Your task to perform on an android device: add a label to a message in the gmail app Image 0: 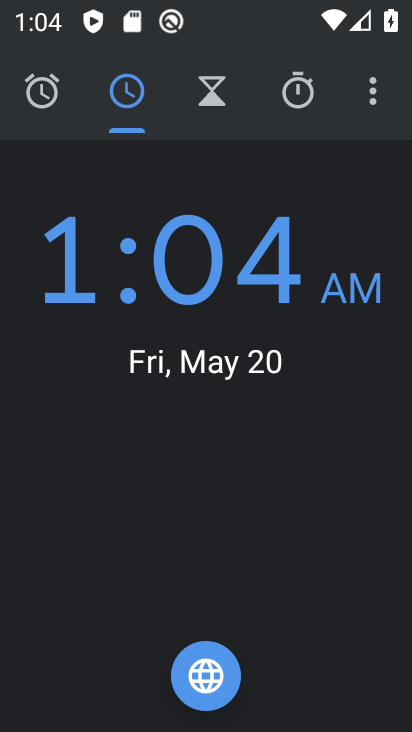
Step 0: click (368, 93)
Your task to perform on an android device: add a label to a message in the gmail app Image 1: 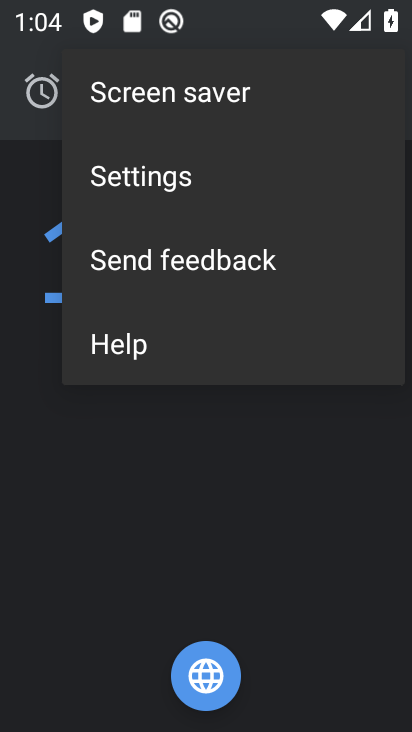
Step 1: press home button
Your task to perform on an android device: add a label to a message in the gmail app Image 2: 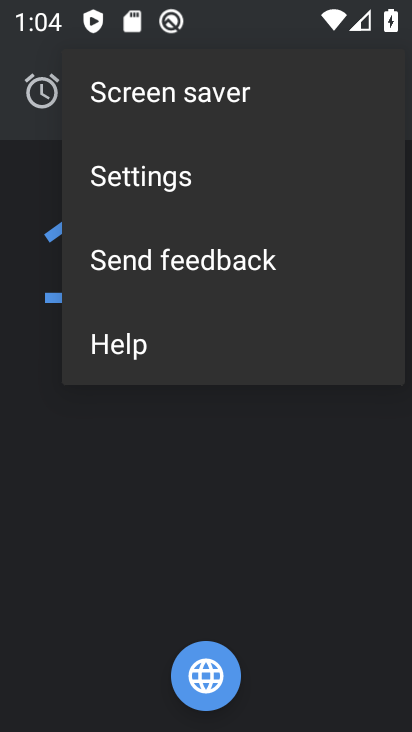
Step 2: press home button
Your task to perform on an android device: add a label to a message in the gmail app Image 3: 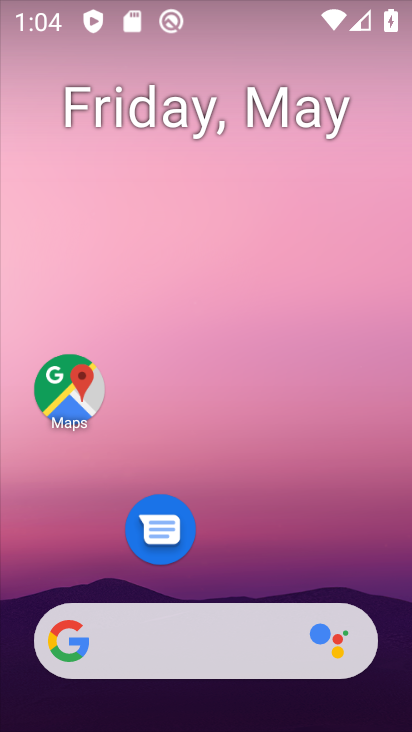
Step 3: drag from (227, 553) to (335, 28)
Your task to perform on an android device: add a label to a message in the gmail app Image 4: 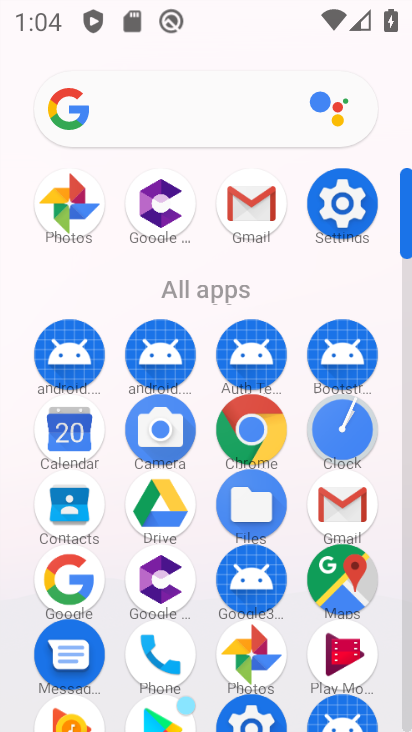
Step 4: click (339, 508)
Your task to perform on an android device: add a label to a message in the gmail app Image 5: 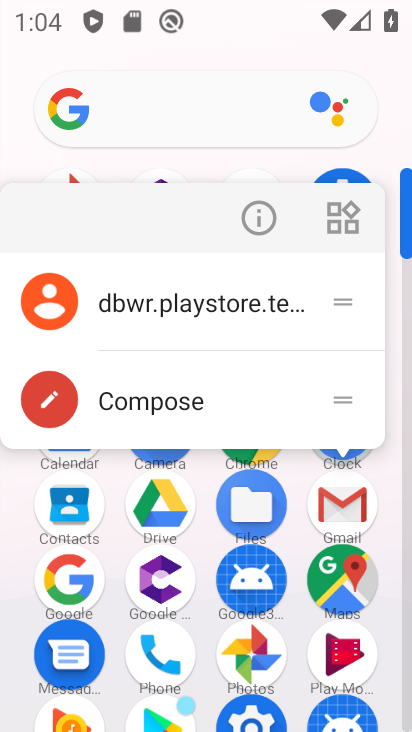
Step 5: click (146, 300)
Your task to perform on an android device: add a label to a message in the gmail app Image 6: 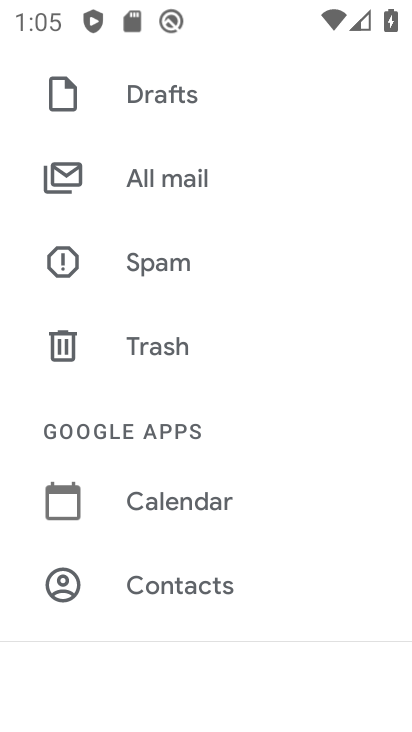
Step 6: task complete